Your task to perform on an android device: Open Google Chrome and click the shortcut for Amazon.com Image 0: 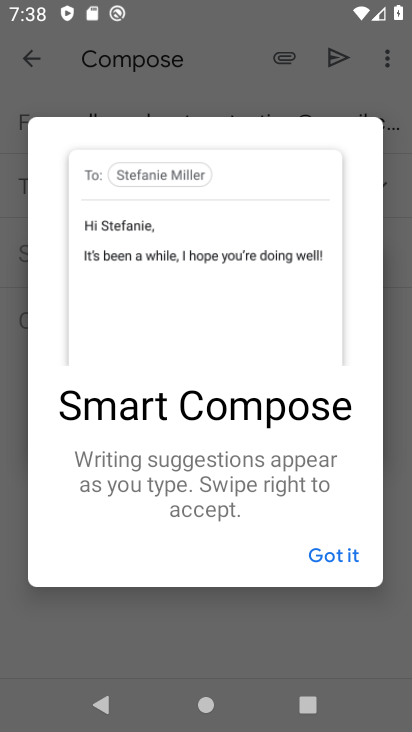
Step 0: press home button
Your task to perform on an android device: Open Google Chrome and click the shortcut for Amazon.com Image 1: 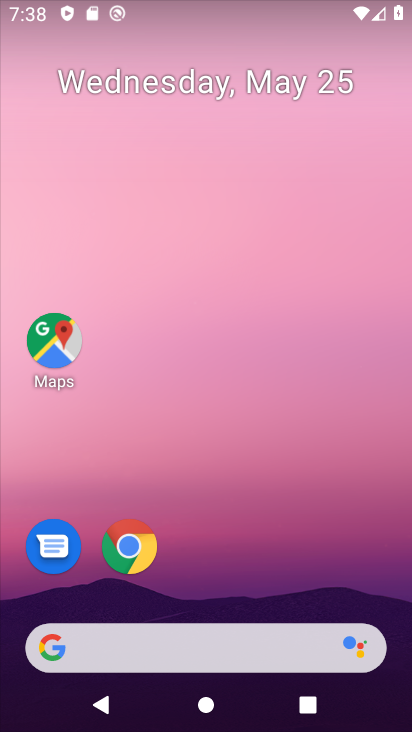
Step 1: click (138, 549)
Your task to perform on an android device: Open Google Chrome and click the shortcut for Amazon.com Image 2: 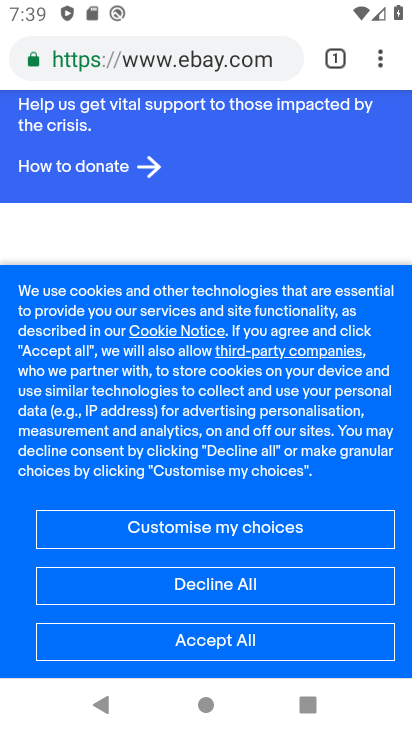
Step 2: press back button
Your task to perform on an android device: Open Google Chrome and click the shortcut for Amazon.com Image 3: 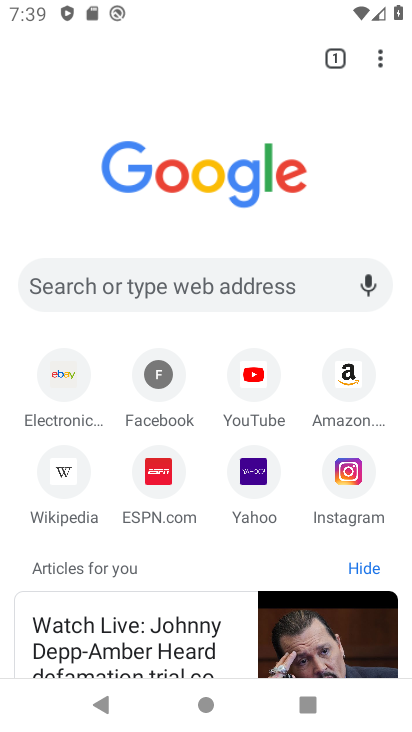
Step 3: click (359, 370)
Your task to perform on an android device: Open Google Chrome and click the shortcut for Amazon.com Image 4: 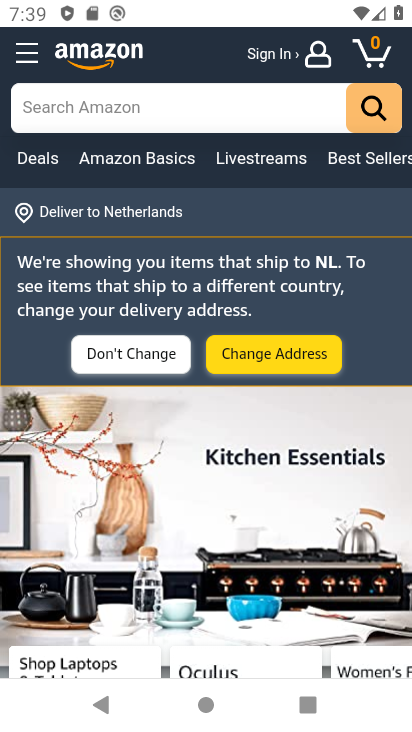
Step 4: task complete